Your task to perform on an android device: Open internet settings Image 0: 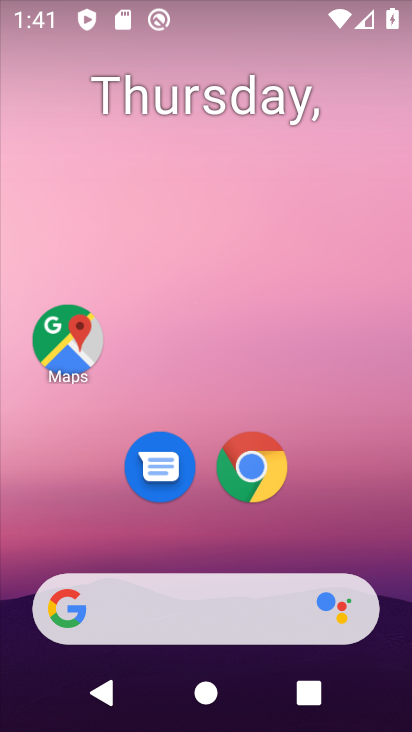
Step 0: drag from (348, 523) to (353, 160)
Your task to perform on an android device: Open internet settings Image 1: 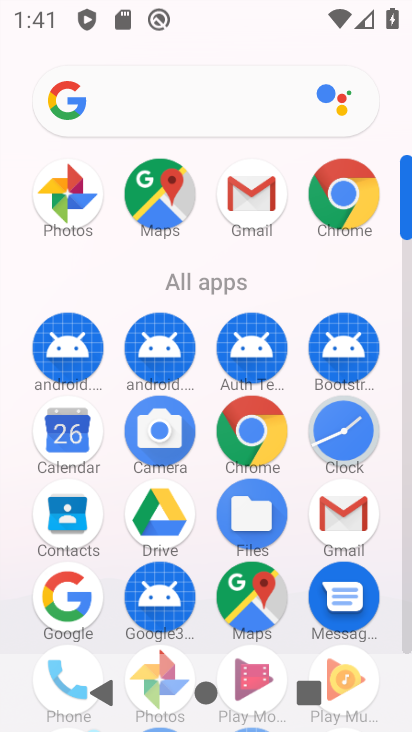
Step 1: drag from (183, 653) to (175, 276)
Your task to perform on an android device: Open internet settings Image 2: 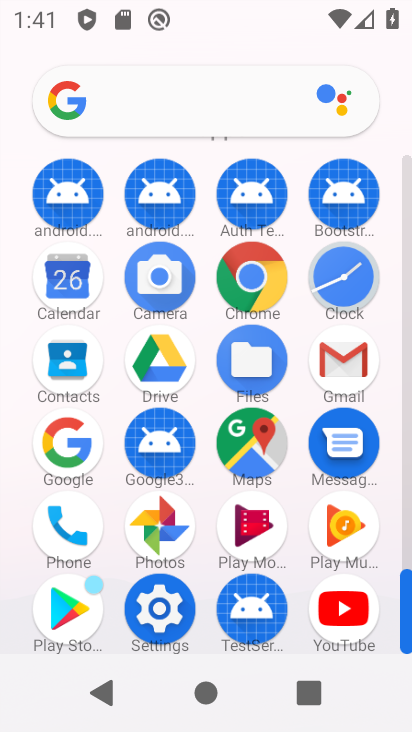
Step 2: click (149, 629)
Your task to perform on an android device: Open internet settings Image 3: 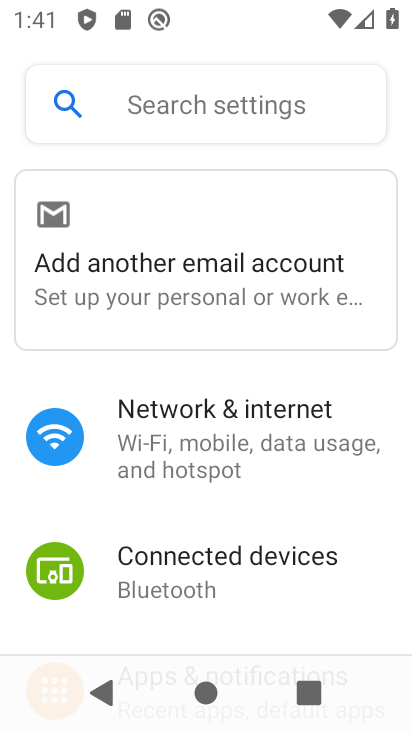
Step 3: drag from (284, 604) to (308, 285)
Your task to perform on an android device: Open internet settings Image 4: 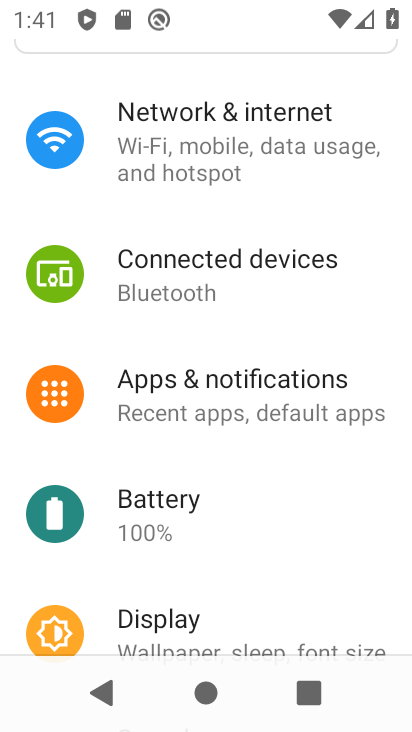
Step 4: click (219, 162)
Your task to perform on an android device: Open internet settings Image 5: 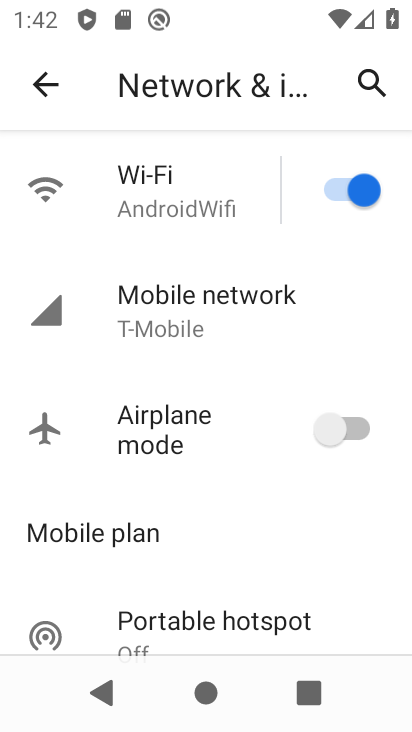
Step 5: click (219, 321)
Your task to perform on an android device: Open internet settings Image 6: 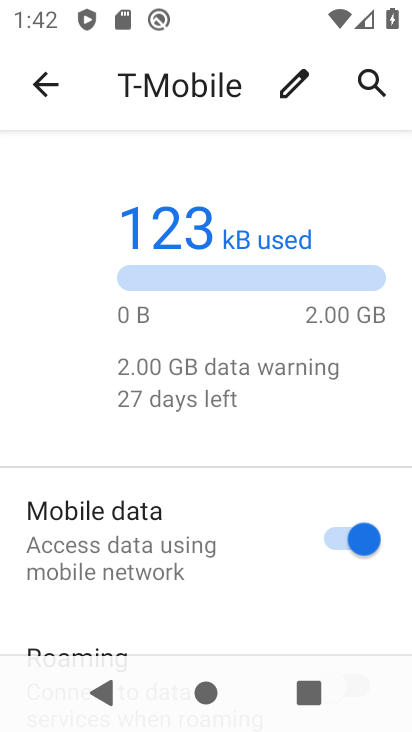
Step 6: task complete